Your task to perform on an android device: toggle location history Image 0: 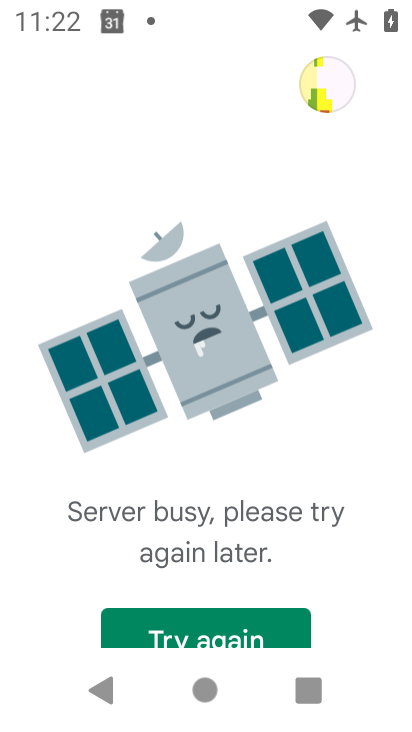
Step 0: press home button
Your task to perform on an android device: toggle location history Image 1: 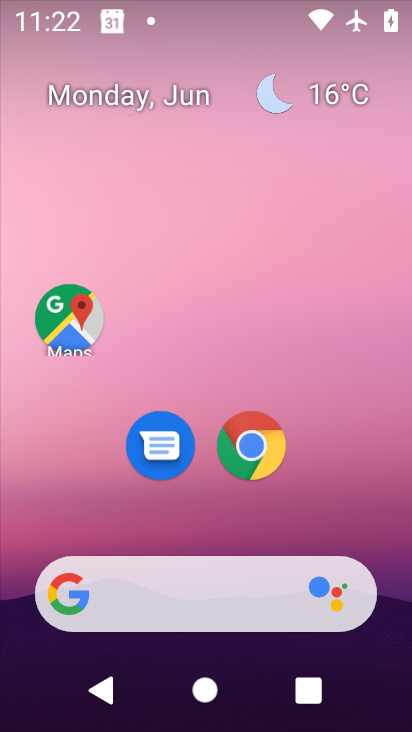
Step 1: drag from (208, 509) to (192, 116)
Your task to perform on an android device: toggle location history Image 2: 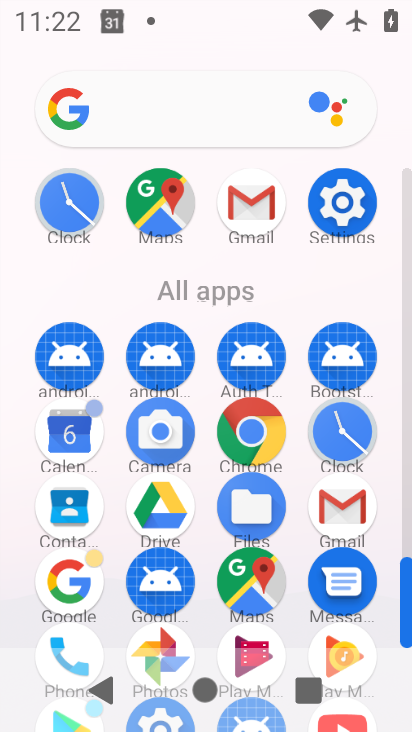
Step 2: click (338, 213)
Your task to perform on an android device: toggle location history Image 3: 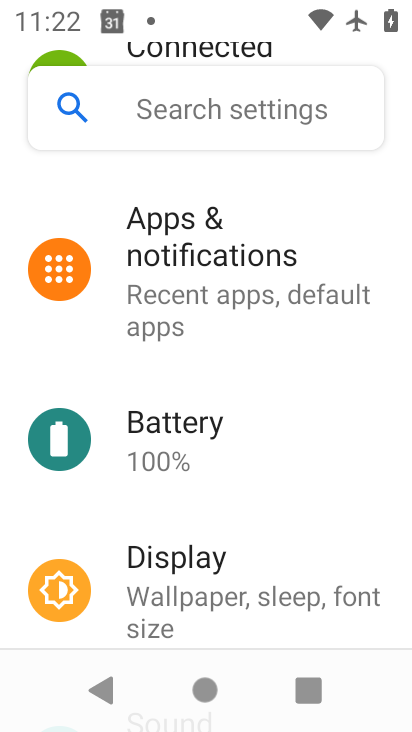
Step 3: drag from (319, 556) to (292, 189)
Your task to perform on an android device: toggle location history Image 4: 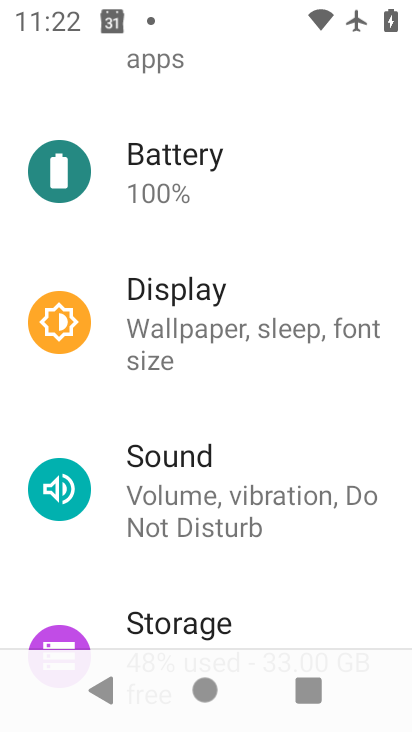
Step 4: drag from (320, 548) to (322, 150)
Your task to perform on an android device: toggle location history Image 5: 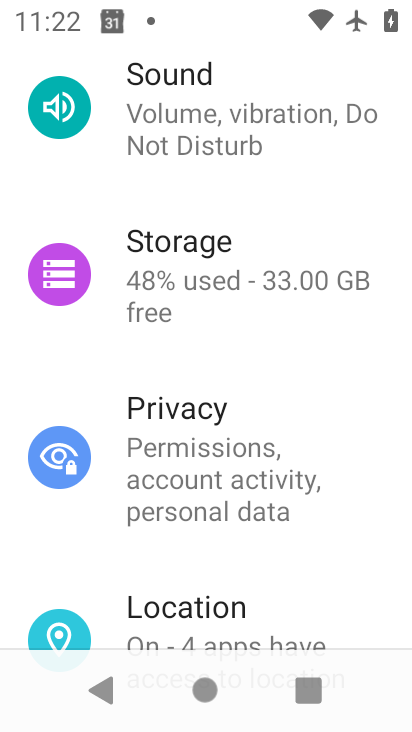
Step 5: click (160, 613)
Your task to perform on an android device: toggle location history Image 6: 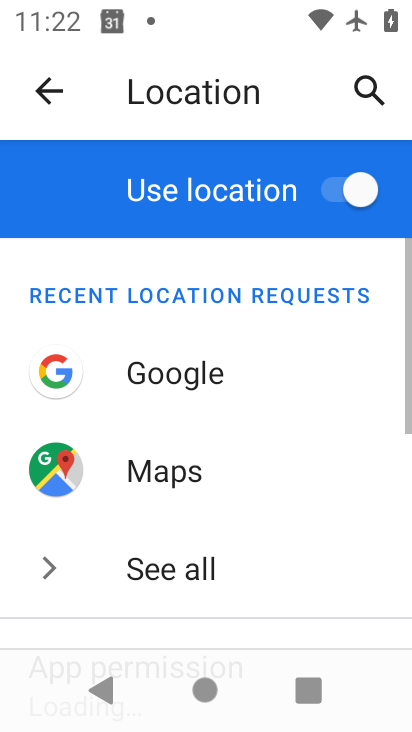
Step 6: drag from (346, 588) to (349, 140)
Your task to perform on an android device: toggle location history Image 7: 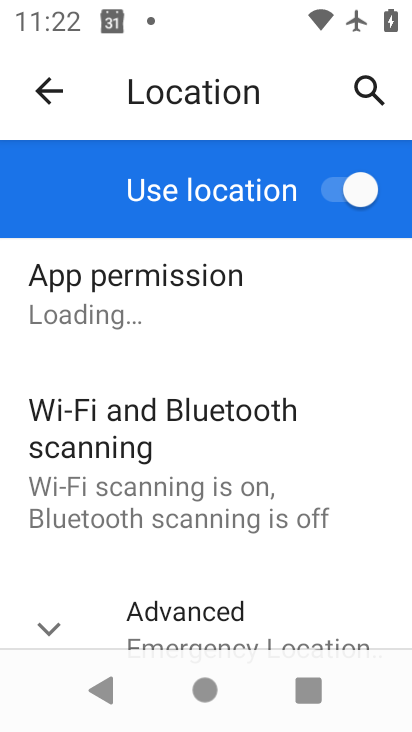
Step 7: drag from (361, 566) to (336, 194)
Your task to perform on an android device: toggle location history Image 8: 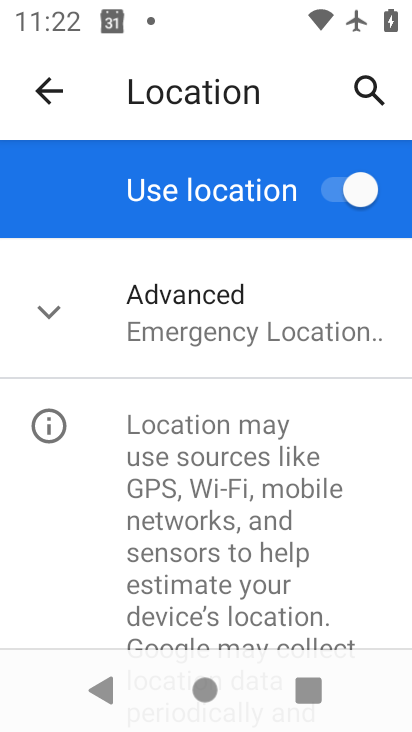
Step 8: click (195, 321)
Your task to perform on an android device: toggle location history Image 9: 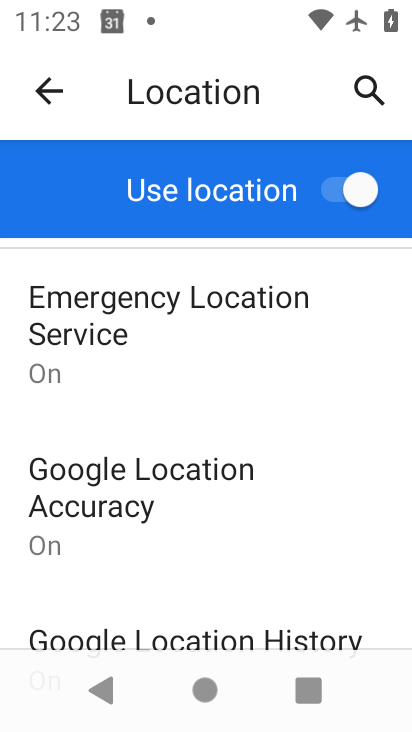
Step 9: drag from (241, 580) to (253, 229)
Your task to perform on an android device: toggle location history Image 10: 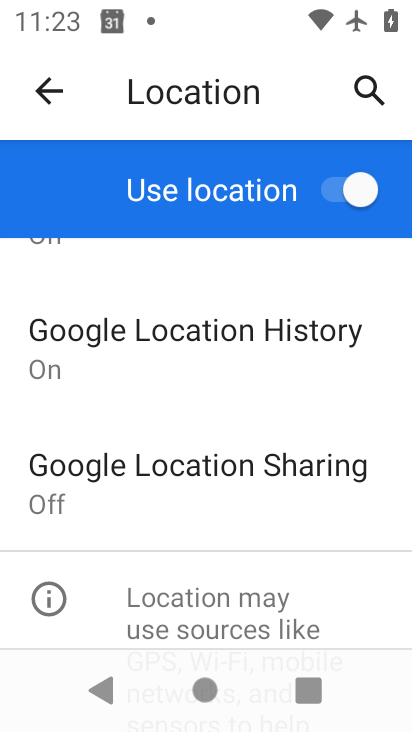
Step 10: click (248, 327)
Your task to perform on an android device: toggle location history Image 11: 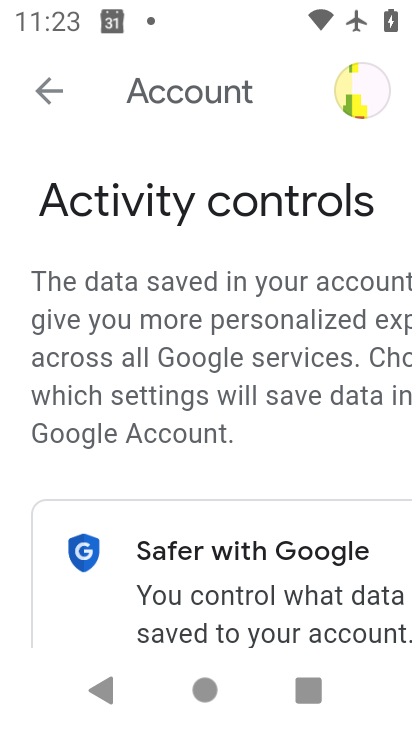
Step 11: drag from (311, 483) to (318, 37)
Your task to perform on an android device: toggle location history Image 12: 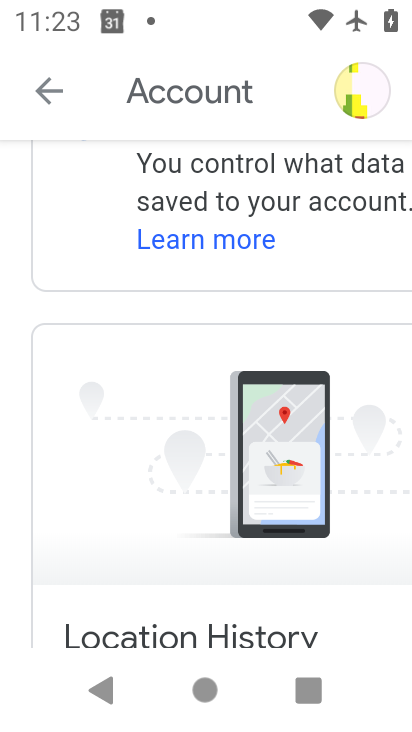
Step 12: drag from (317, 613) to (325, 152)
Your task to perform on an android device: toggle location history Image 13: 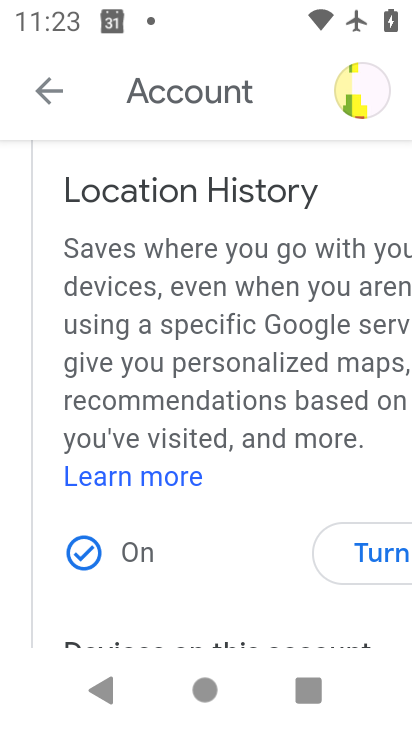
Step 13: drag from (360, 504) to (169, 479)
Your task to perform on an android device: toggle location history Image 14: 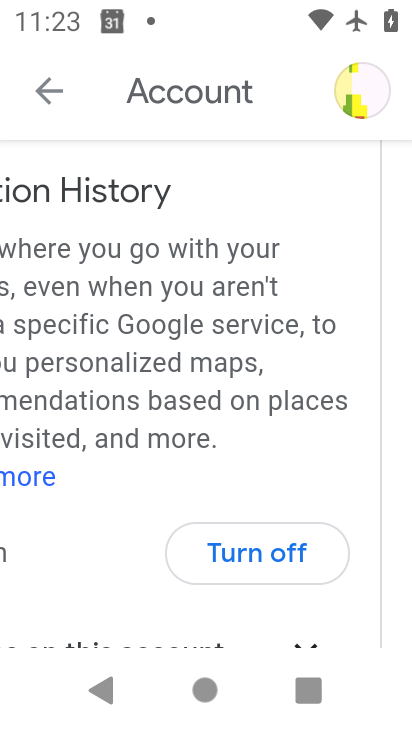
Step 14: click (253, 558)
Your task to perform on an android device: toggle location history Image 15: 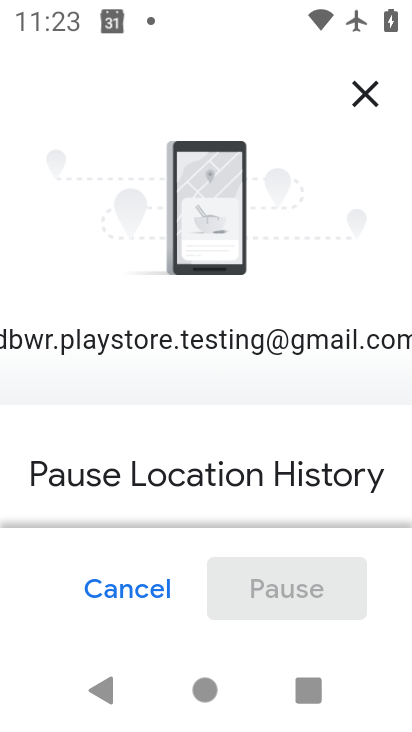
Step 15: click (291, 587)
Your task to perform on an android device: toggle location history Image 16: 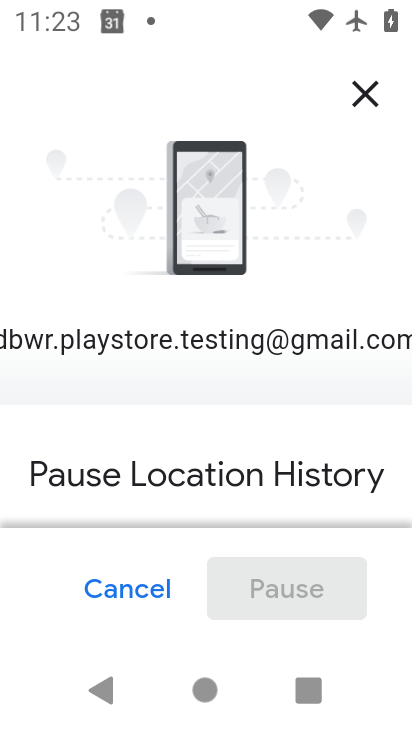
Step 16: drag from (362, 500) to (365, 73)
Your task to perform on an android device: toggle location history Image 17: 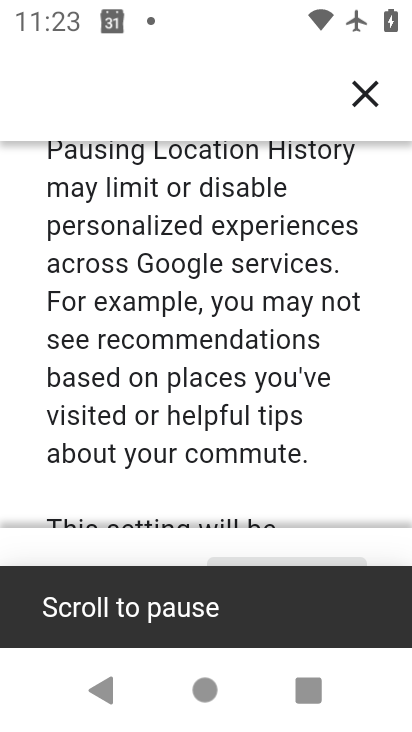
Step 17: drag from (318, 464) to (327, 7)
Your task to perform on an android device: toggle location history Image 18: 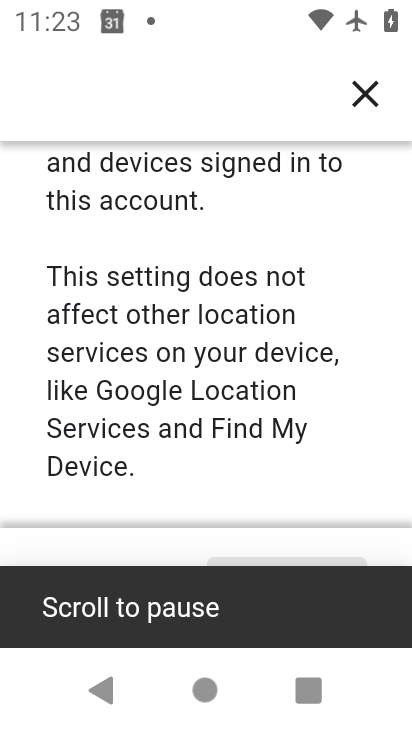
Step 18: drag from (320, 453) to (350, 1)
Your task to perform on an android device: toggle location history Image 19: 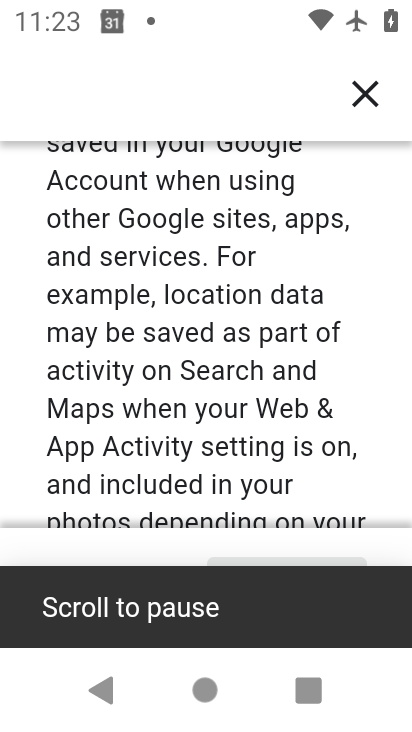
Step 19: drag from (377, 472) to (357, 1)
Your task to perform on an android device: toggle location history Image 20: 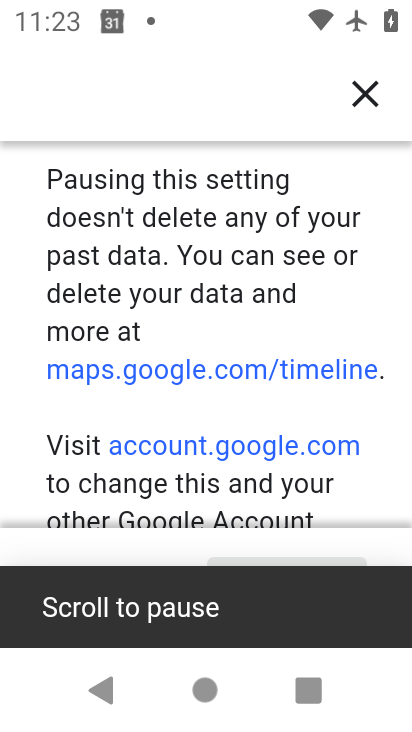
Step 20: drag from (370, 475) to (382, 7)
Your task to perform on an android device: toggle location history Image 21: 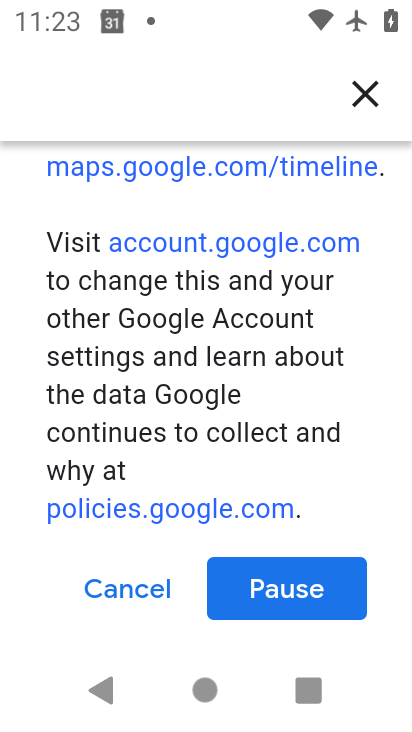
Step 21: click (265, 593)
Your task to perform on an android device: toggle location history Image 22: 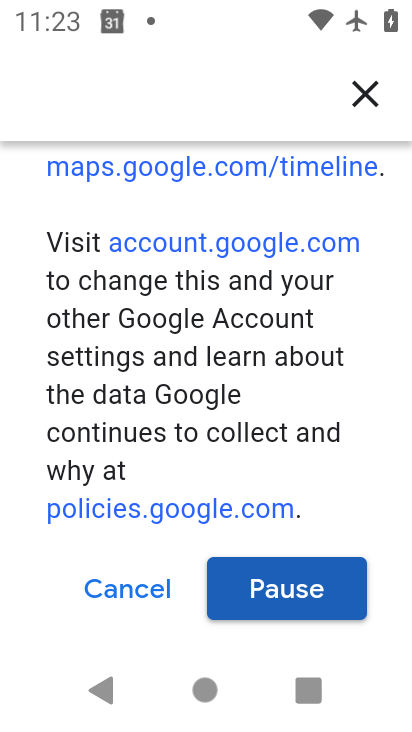
Step 22: click (267, 591)
Your task to perform on an android device: toggle location history Image 23: 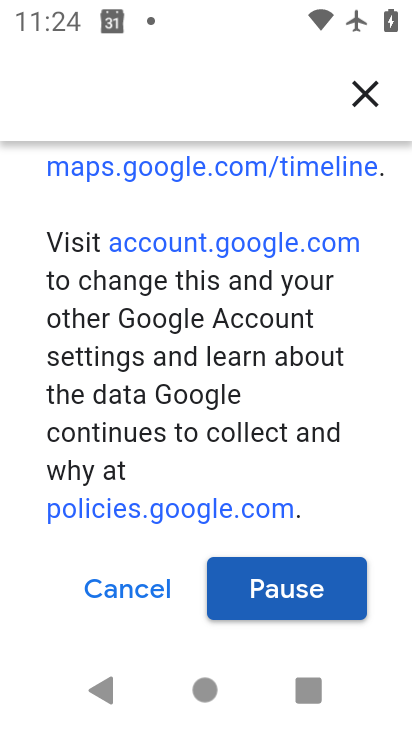
Step 23: click (267, 590)
Your task to perform on an android device: toggle location history Image 24: 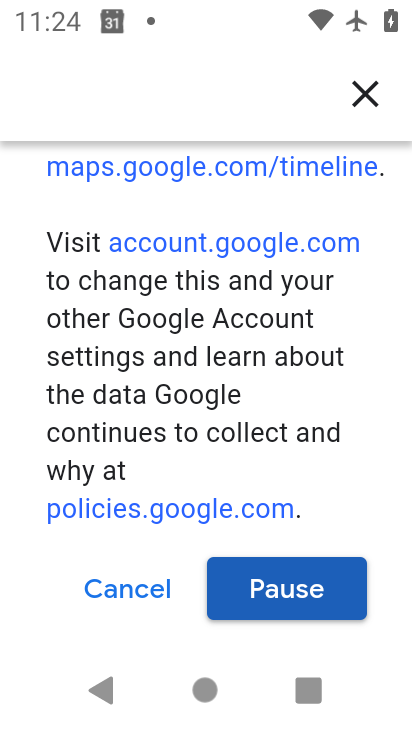
Step 24: click (264, 590)
Your task to perform on an android device: toggle location history Image 25: 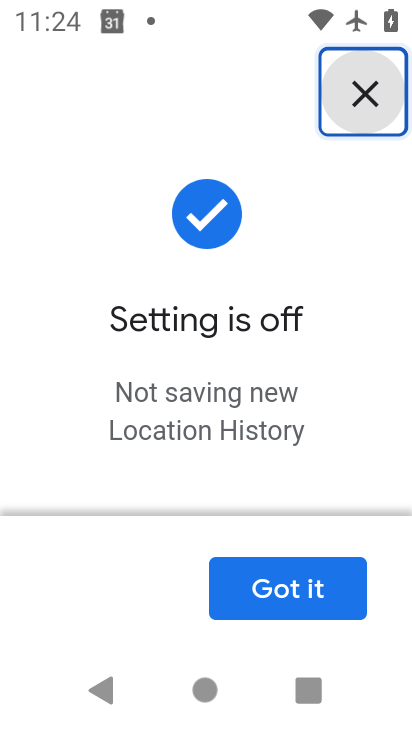
Step 25: click (264, 589)
Your task to perform on an android device: toggle location history Image 26: 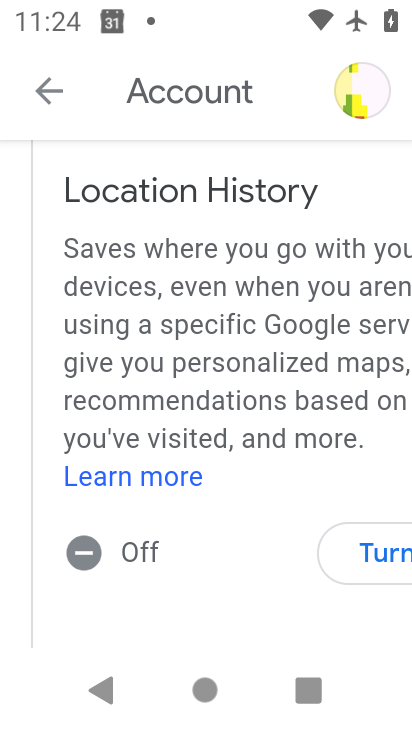
Step 26: task complete